Your task to perform on an android device: turn smart compose on in the gmail app Image 0: 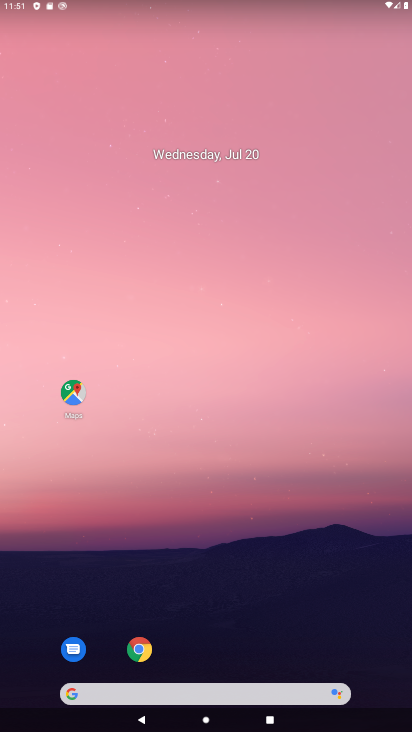
Step 0: task complete